Your task to perform on an android device: change keyboard looks Image 0: 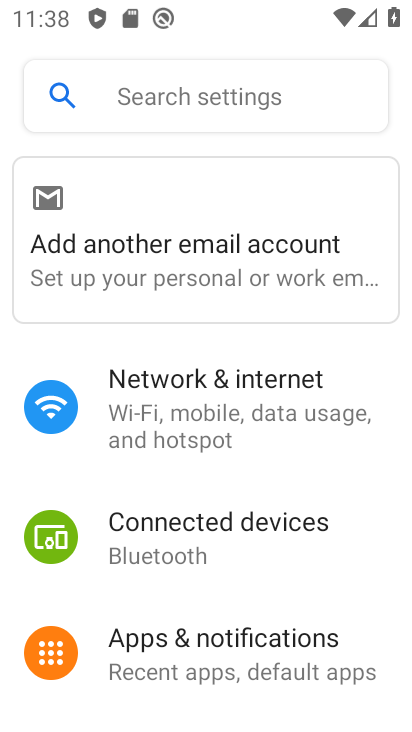
Step 0: drag from (271, 674) to (367, 86)
Your task to perform on an android device: change keyboard looks Image 1: 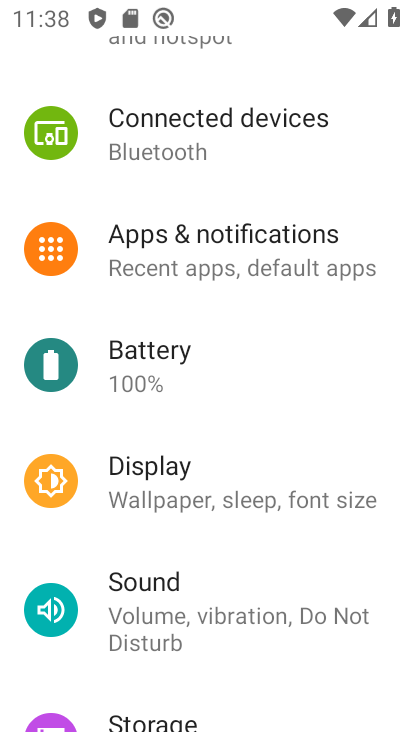
Step 1: drag from (289, 674) to (327, 106)
Your task to perform on an android device: change keyboard looks Image 2: 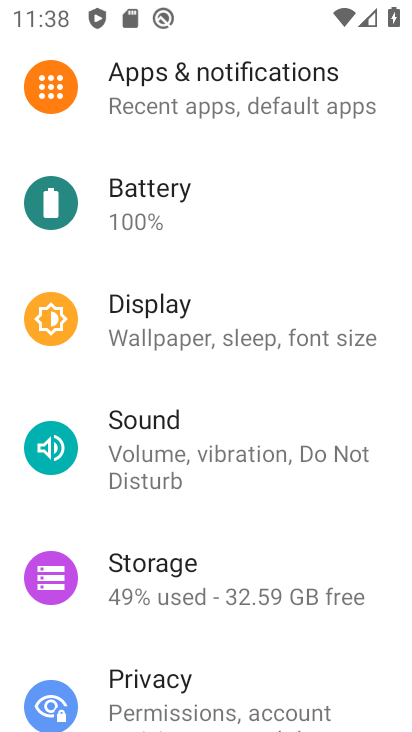
Step 2: drag from (345, 627) to (313, 66)
Your task to perform on an android device: change keyboard looks Image 3: 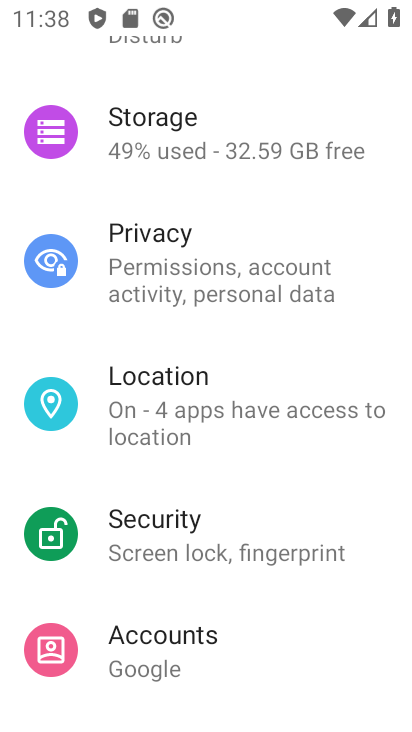
Step 3: drag from (313, 660) to (320, 76)
Your task to perform on an android device: change keyboard looks Image 4: 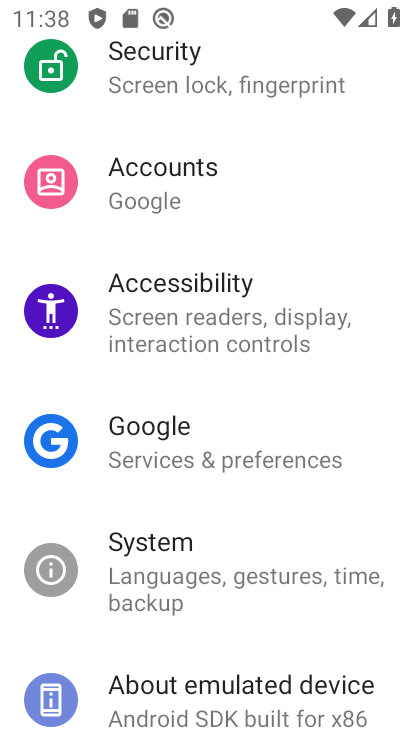
Step 4: drag from (284, 681) to (284, 180)
Your task to perform on an android device: change keyboard looks Image 5: 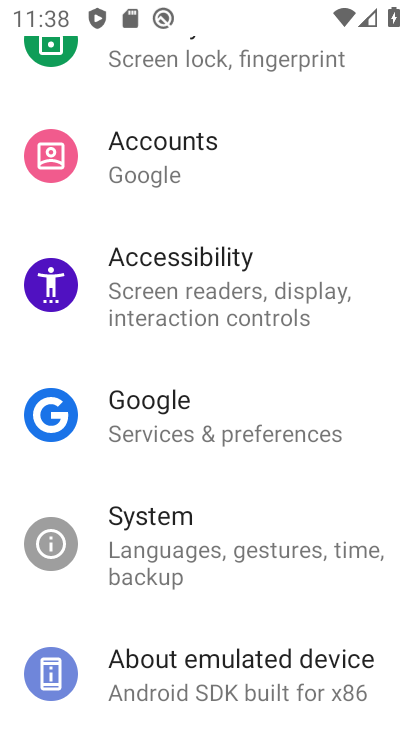
Step 5: drag from (304, 239) to (278, 725)
Your task to perform on an android device: change keyboard looks Image 6: 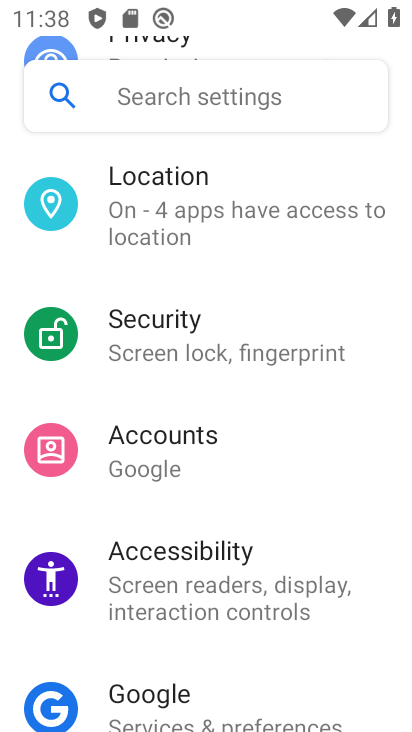
Step 6: drag from (299, 261) to (258, 725)
Your task to perform on an android device: change keyboard looks Image 7: 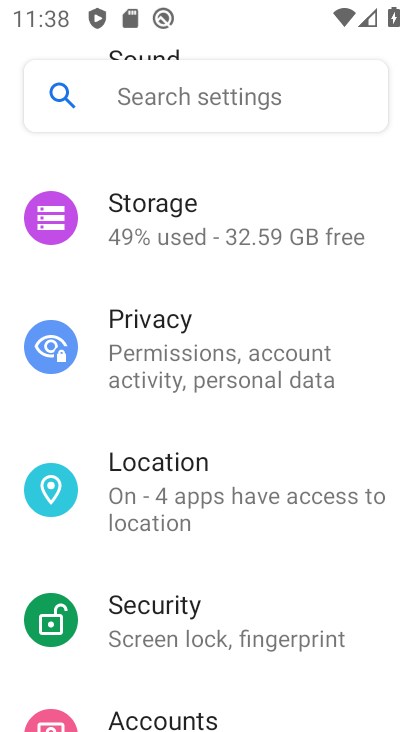
Step 7: drag from (334, 215) to (291, 729)
Your task to perform on an android device: change keyboard looks Image 8: 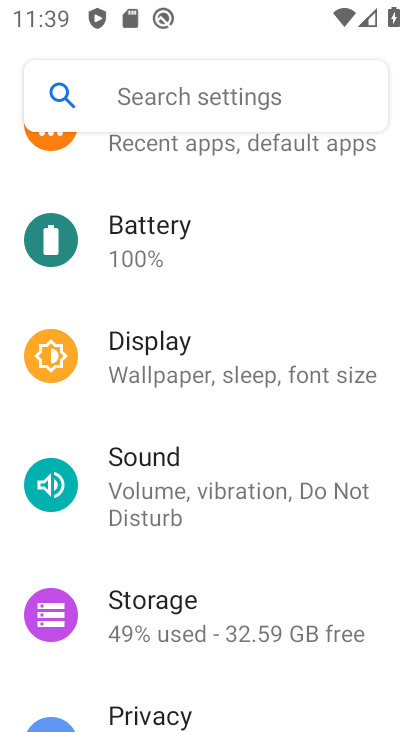
Step 8: drag from (260, 649) to (302, 43)
Your task to perform on an android device: change keyboard looks Image 9: 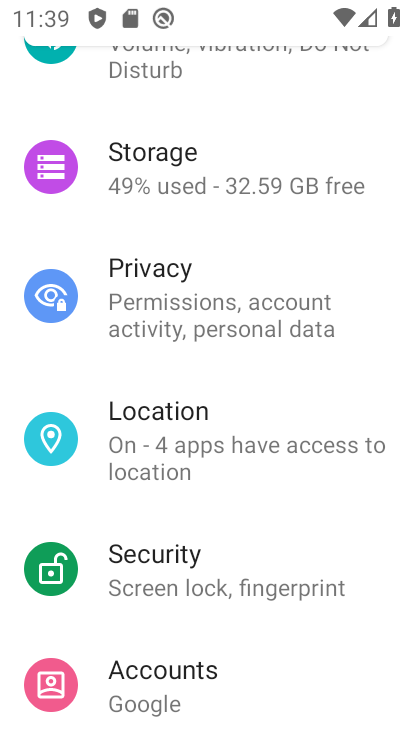
Step 9: drag from (229, 686) to (252, 52)
Your task to perform on an android device: change keyboard looks Image 10: 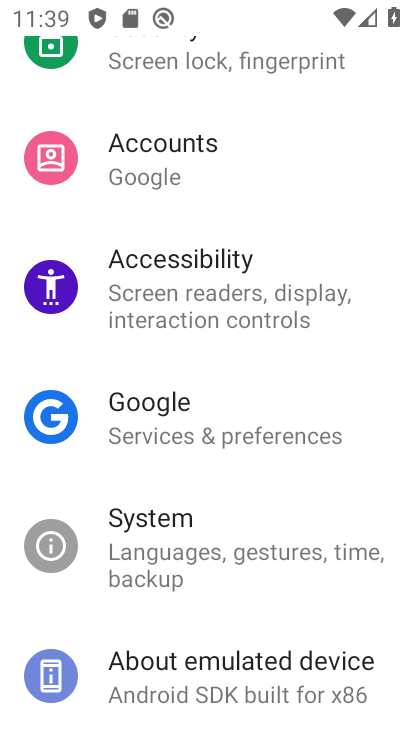
Step 10: click (273, 555)
Your task to perform on an android device: change keyboard looks Image 11: 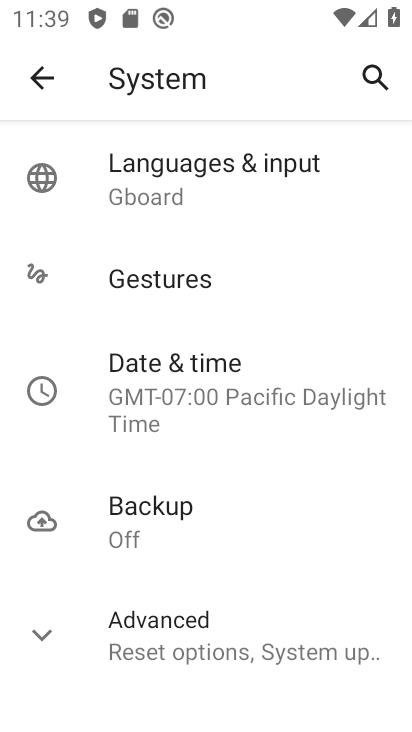
Step 11: click (221, 177)
Your task to perform on an android device: change keyboard looks Image 12: 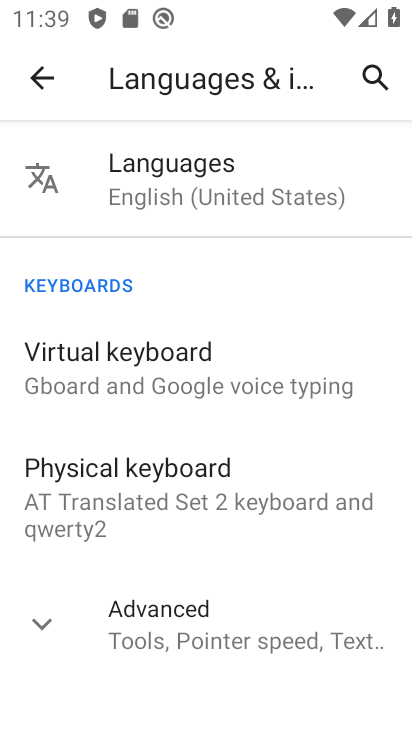
Step 12: click (163, 383)
Your task to perform on an android device: change keyboard looks Image 13: 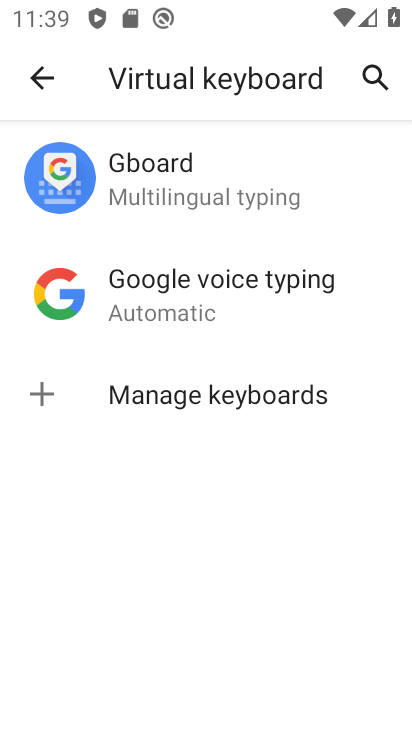
Step 13: click (205, 162)
Your task to perform on an android device: change keyboard looks Image 14: 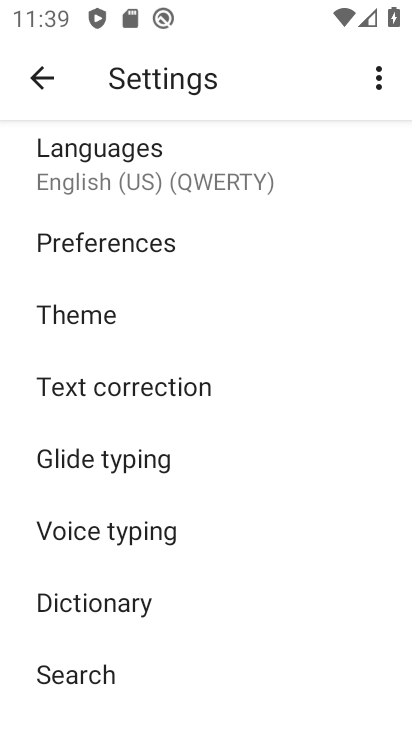
Step 14: click (85, 319)
Your task to perform on an android device: change keyboard looks Image 15: 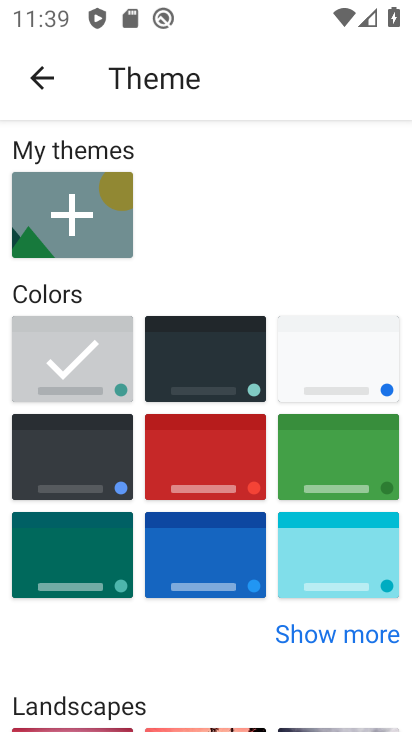
Step 15: click (187, 356)
Your task to perform on an android device: change keyboard looks Image 16: 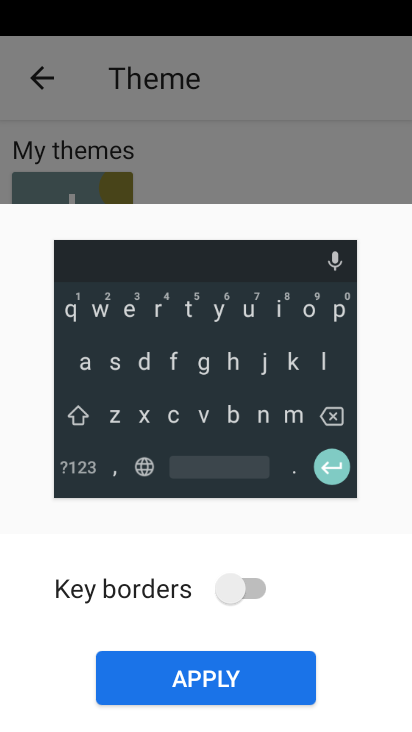
Step 16: click (227, 688)
Your task to perform on an android device: change keyboard looks Image 17: 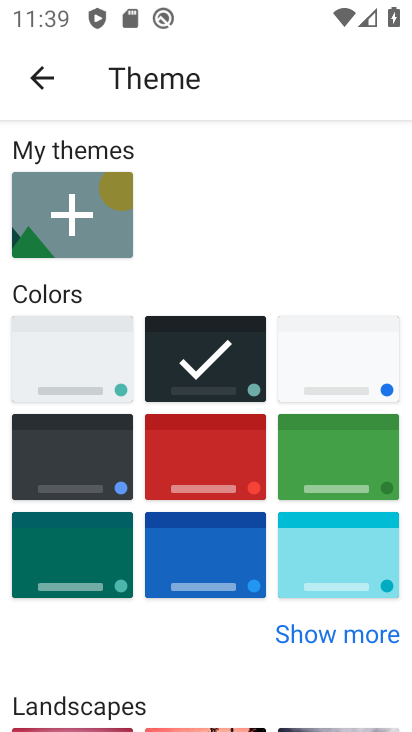
Step 17: task complete